Your task to perform on an android device: Go to eBay Image 0: 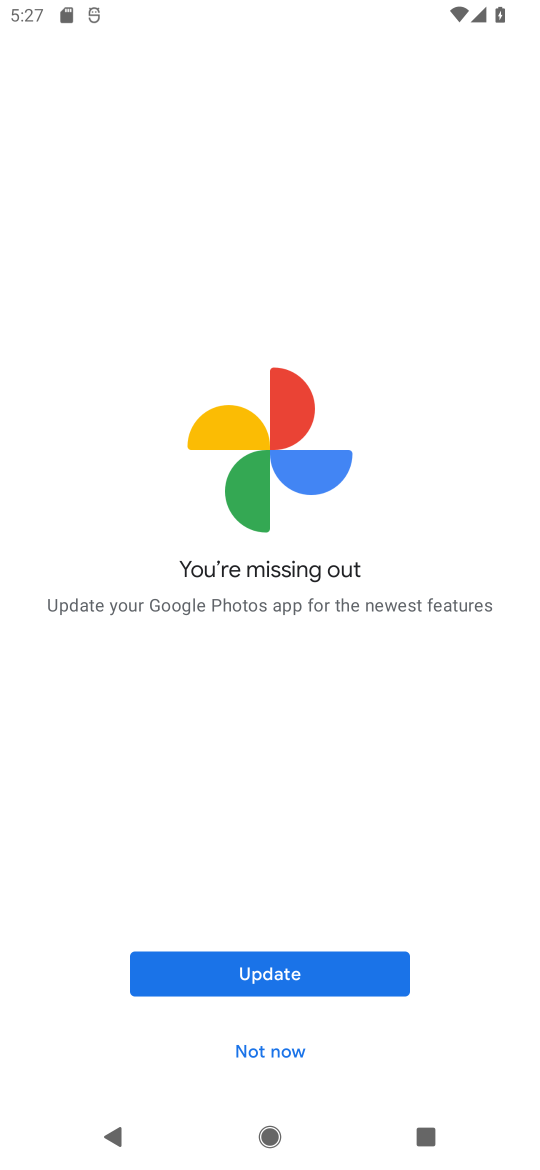
Step 0: press home button
Your task to perform on an android device: Go to eBay Image 1: 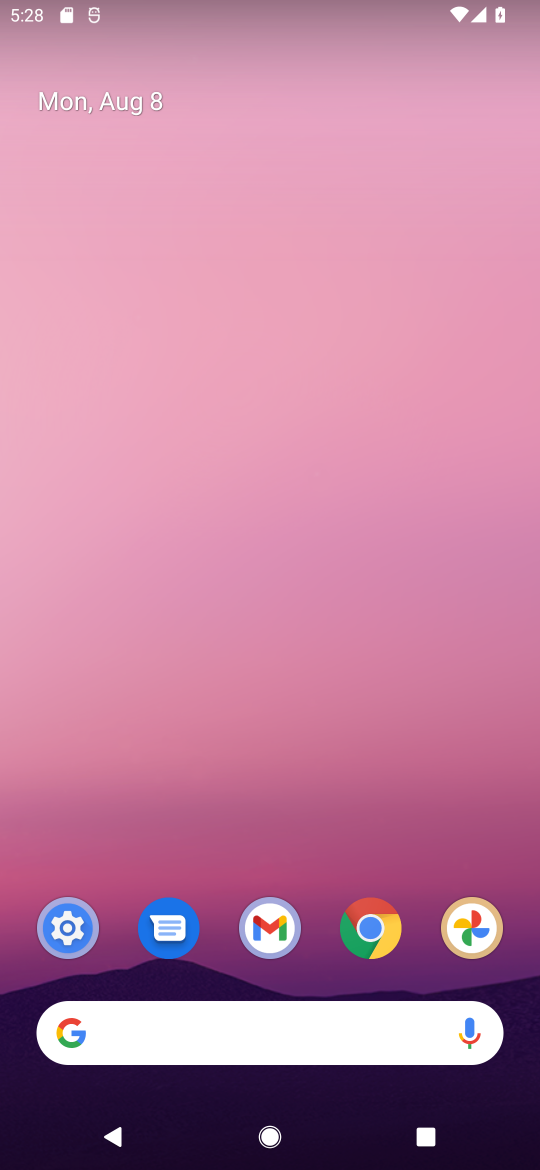
Step 1: click (384, 925)
Your task to perform on an android device: Go to eBay Image 2: 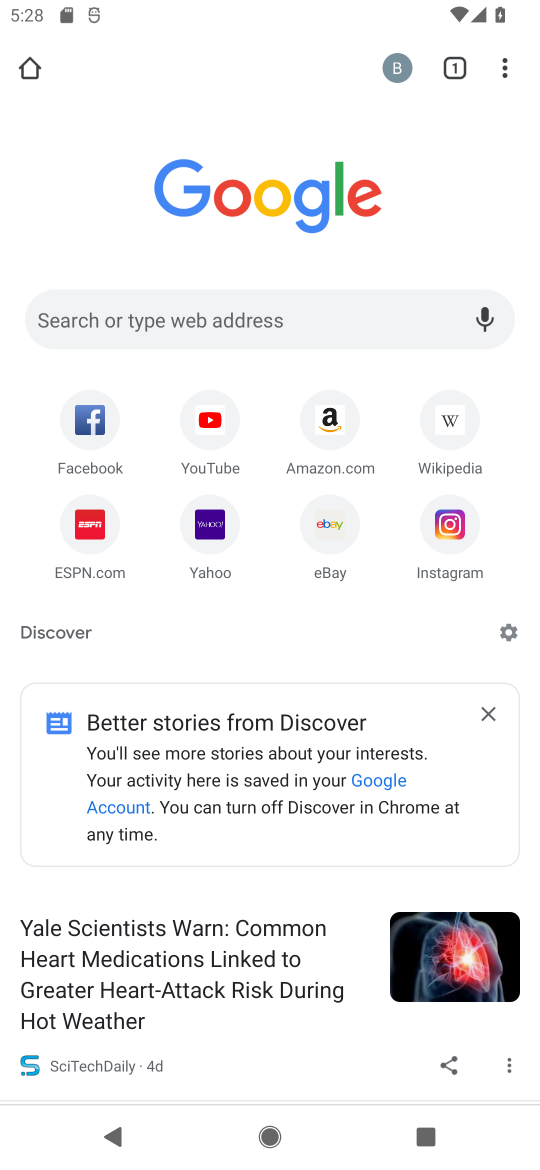
Step 2: click (310, 523)
Your task to perform on an android device: Go to eBay Image 3: 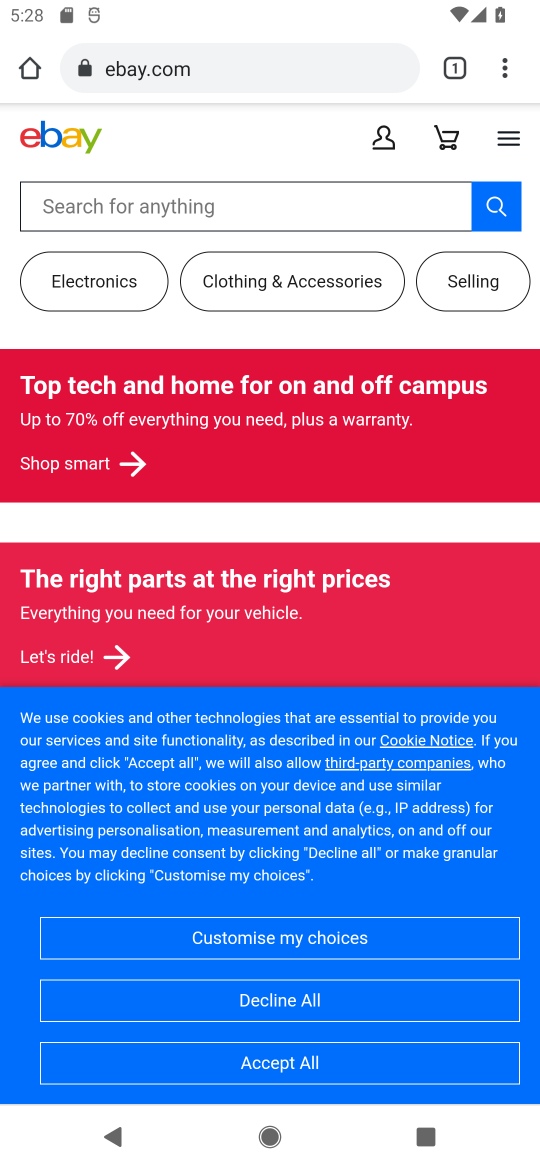
Step 3: task complete